Your task to perform on an android device: Go to wifi settings Image 0: 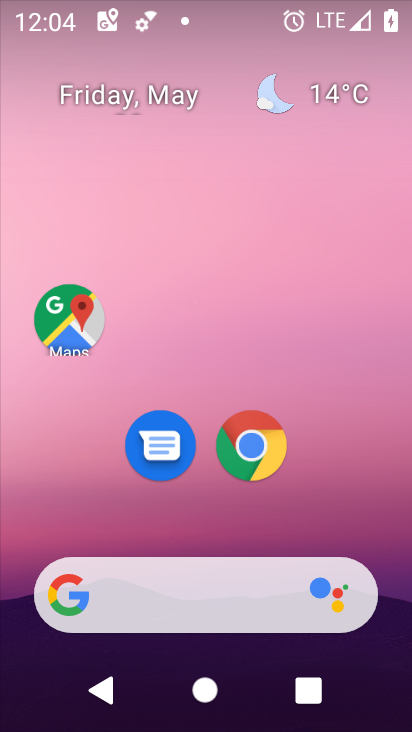
Step 0: drag from (229, 533) to (238, 185)
Your task to perform on an android device: Go to wifi settings Image 1: 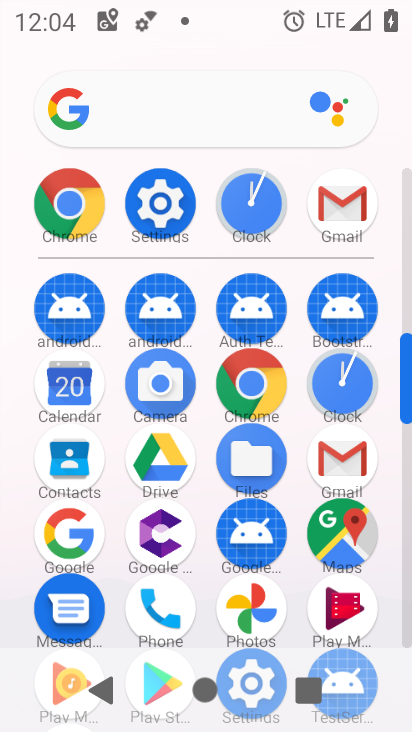
Step 1: click (176, 225)
Your task to perform on an android device: Go to wifi settings Image 2: 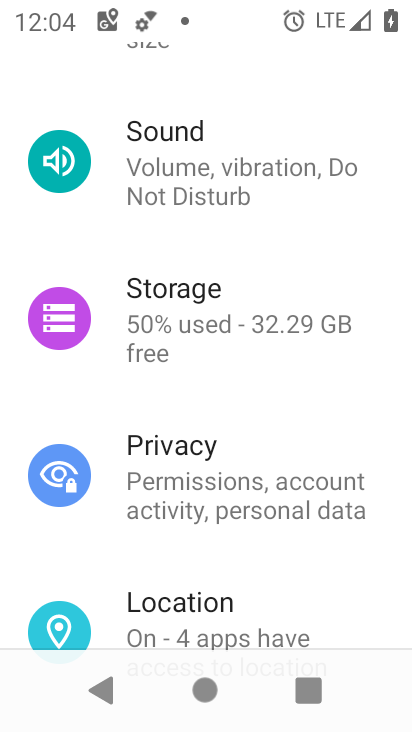
Step 2: drag from (178, 164) to (177, 628)
Your task to perform on an android device: Go to wifi settings Image 3: 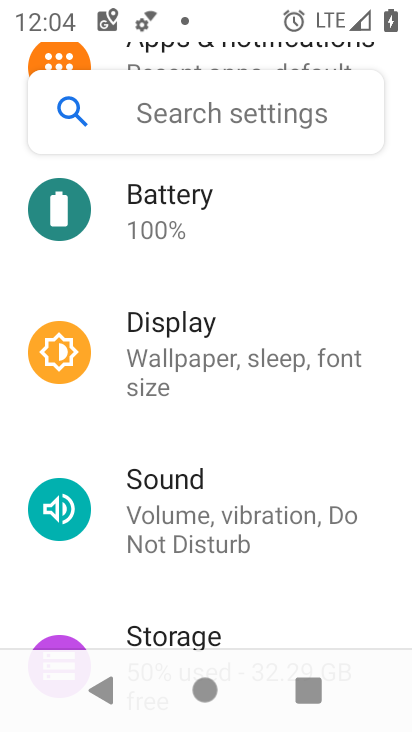
Step 3: drag from (167, 233) to (189, 643)
Your task to perform on an android device: Go to wifi settings Image 4: 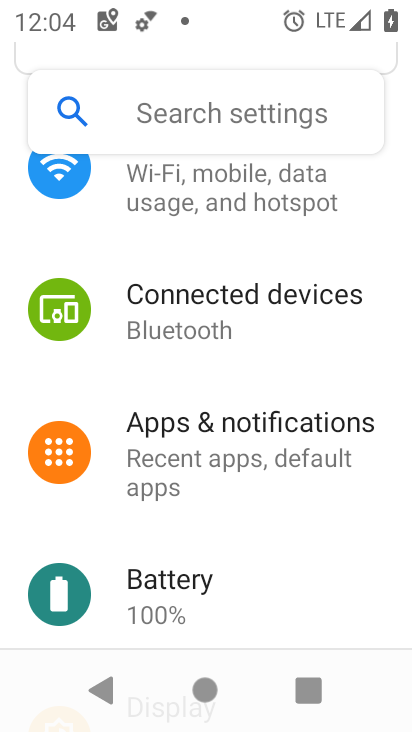
Step 4: drag from (166, 338) to (124, 662)
Your task to perform on an android device: Go to wifi settings Image 5: 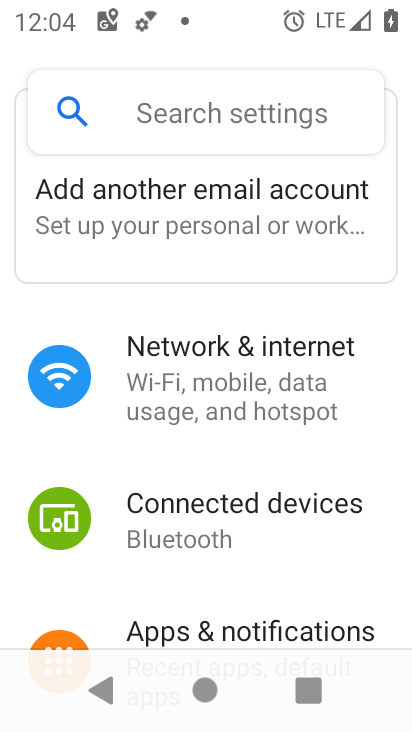
Step 5: click (165, 356)
Your task to perform on an android device: Go to wifi settings Image 6: 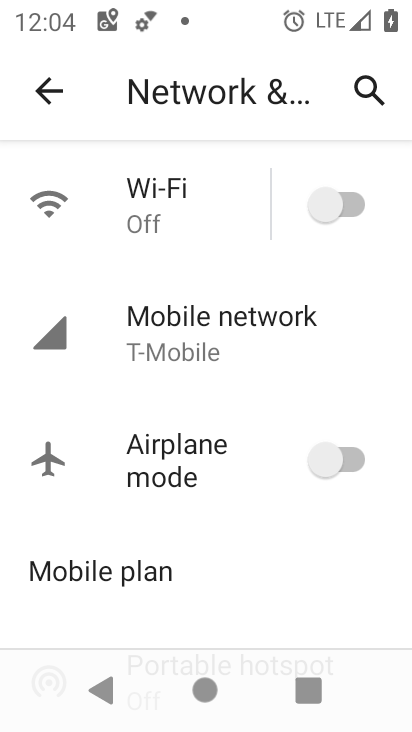
Step 6: click (123, 230)
Your task to perform on an android device: Go to wifi settings Image 7: 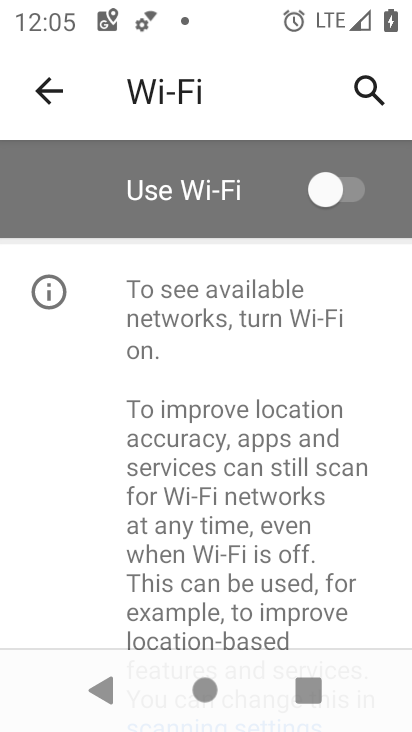
Step 7: task complete